Your task to perform on an android device: Go to Reddit.com Image 0: 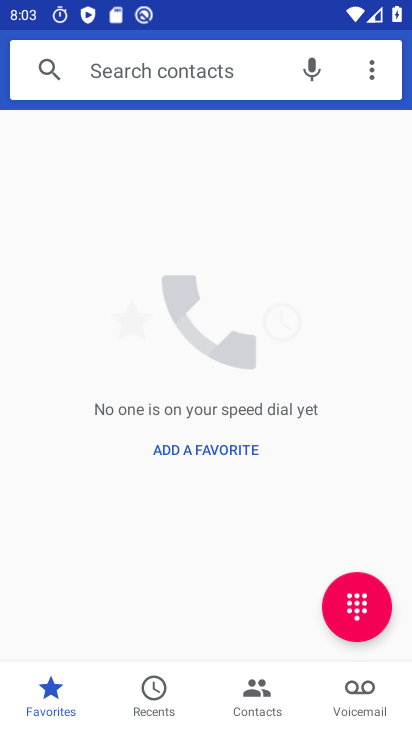
Step 0: press home button
Your task to perform on an android device: Go to Reddit.com Image 1: 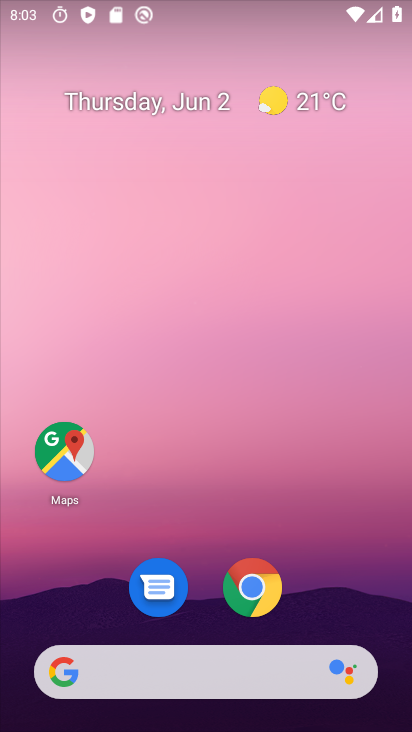
Step 1: click (255, 588)
Your task to perform on an android device: Go to Reddit.com Image 2: 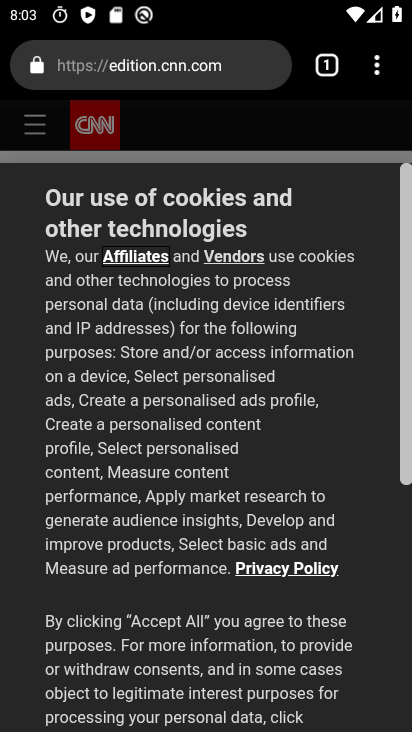
Step 2: click (102, 69)
Your task to perform on an android device: Go to Reddit.com Image 3: 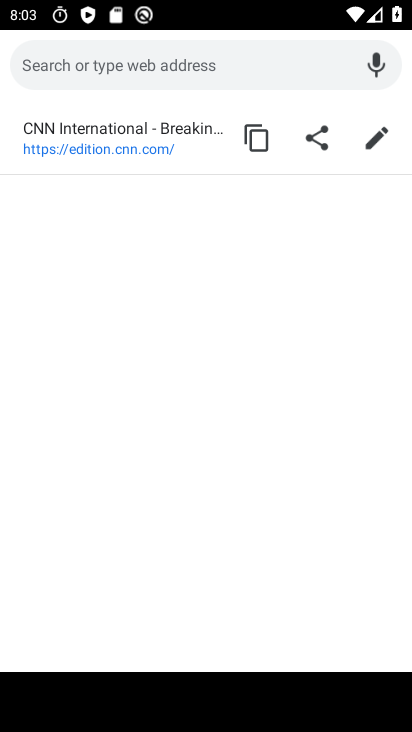
Step 3: type "reddit.com"
Your task to perform on an android device: Go to Reddit.com Image 4: 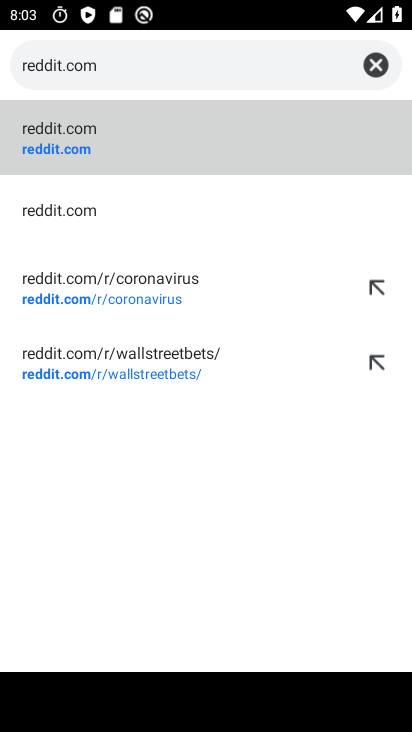
Step 4: click (35, 139)
Your task to perform on an android device: Go to Reddit.com Image 5: 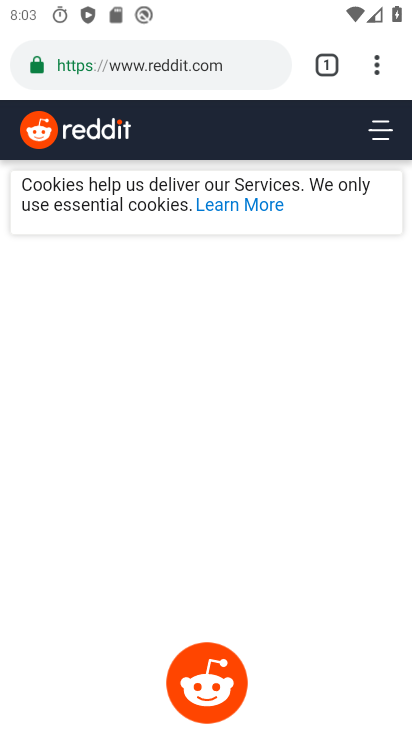
Step 5: task complete